Your task to perform on an android device: Go to sound settings Image 0: 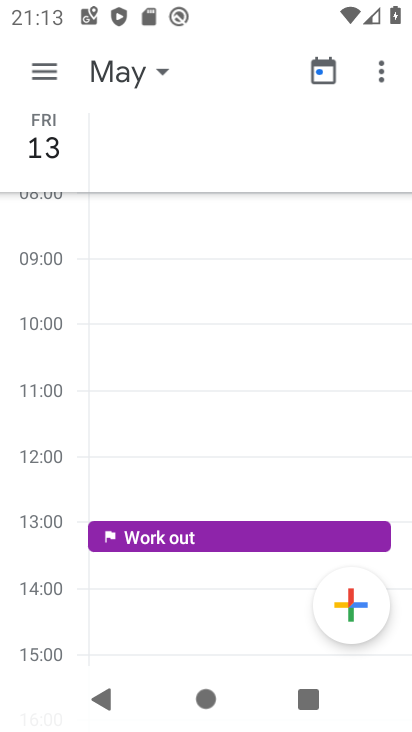
Step 0: drag from (316, 652) to (260, 277)
Your task to perform on an android device: Go to sound settings Image 1: 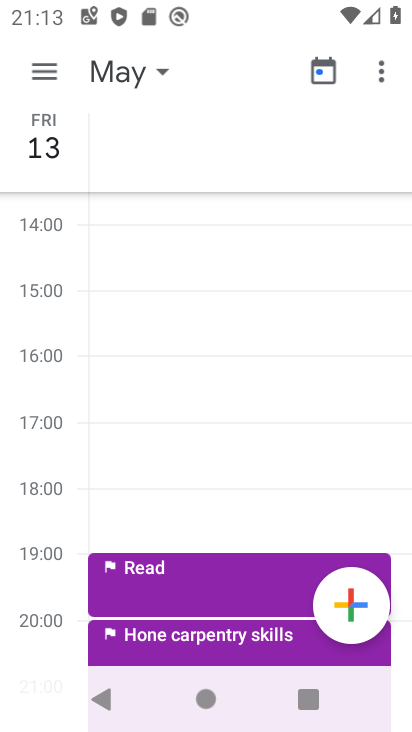
Step 1: press home button
Your task to perform on an android device: Go to sound settings Image 2: 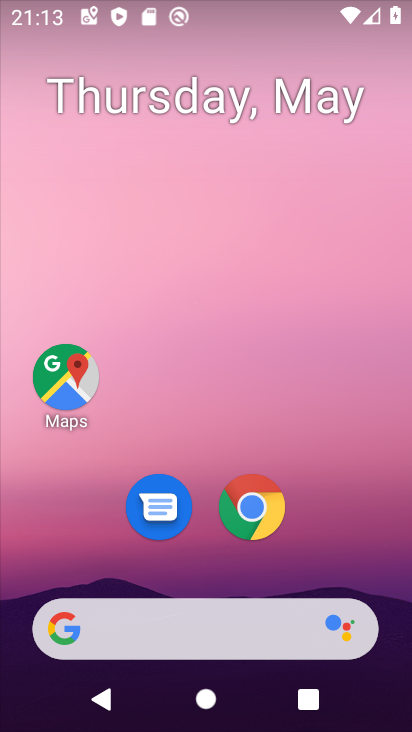
Step 2: drag from (259, 662) to (187, 367)
Your task to perform on an android device: Go to sound settings Image 3: 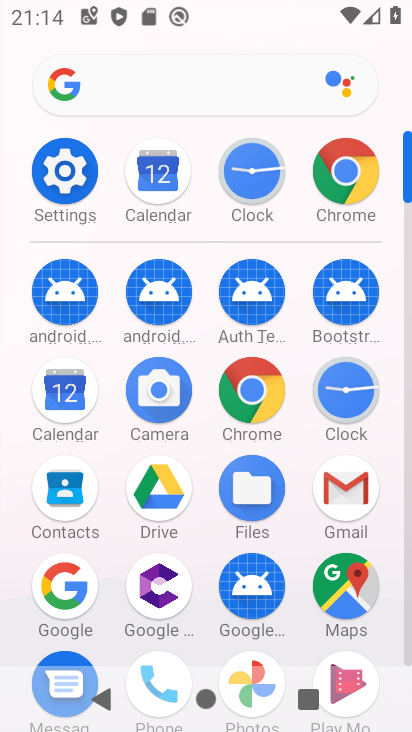
Step 3: click (60, 179)
Your task to perform on an android device: Go to sound settings Image 4: 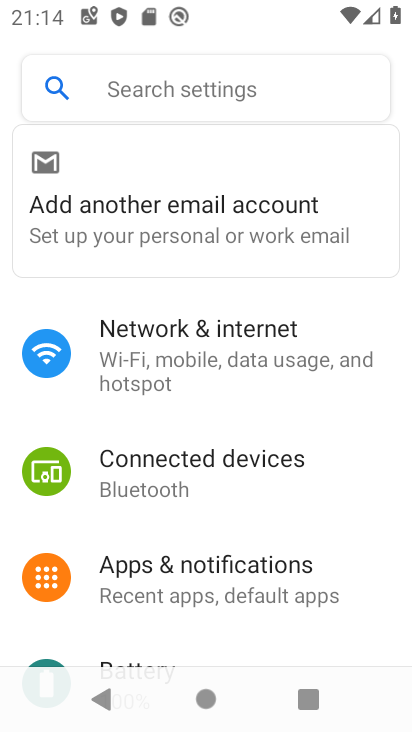
Step 4: drag from (170, 585) to (196, 242)
Your task to perform on an android device: Go to sound settings Image 5: 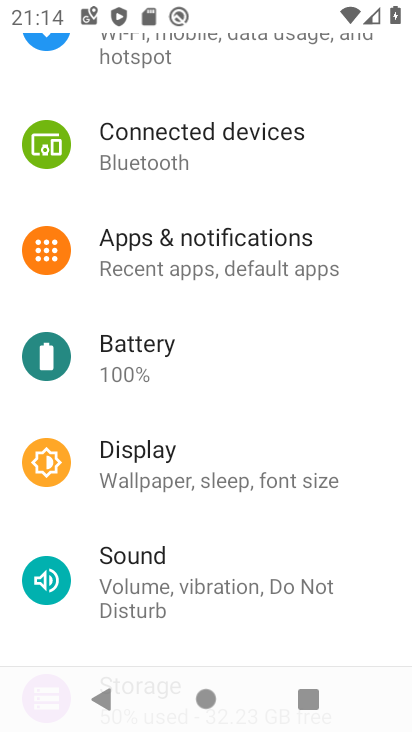
Step 5: click (173, 552)
Your task to perform on an android device: Go to sound settings Image 6: 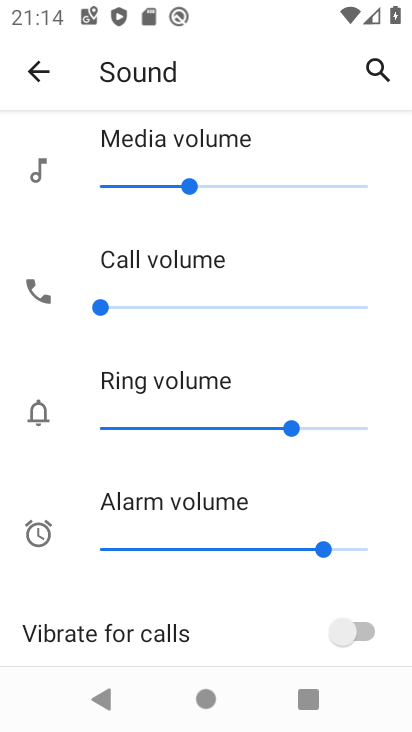
Step 6: task complete